Your task to perform on an android device: Open calendar and show me the first week of next month Image 0: 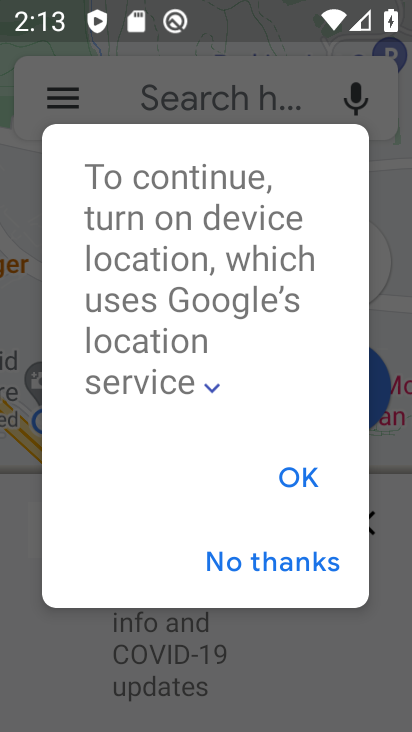
Step 0: press back button
Your task to perform on an android device: Open calendar and show me the first week of next month Image 1: 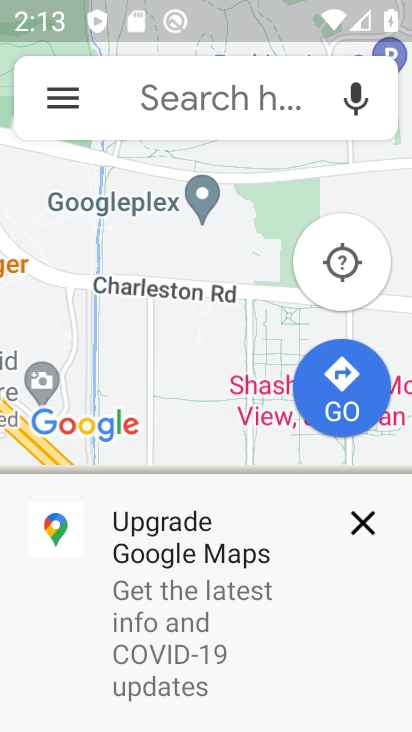
Step 1: press home button
Your task to perform on an android device: Open calendar and show me the first week of next month Image 2: 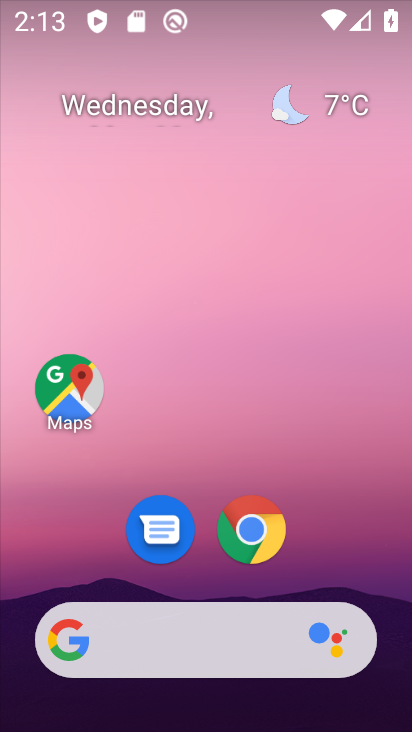
Step 2: drag from (50, 528) to (255, 161)
Your task to perform on an android device: Open calendar and show me the first week of next month Image 3: 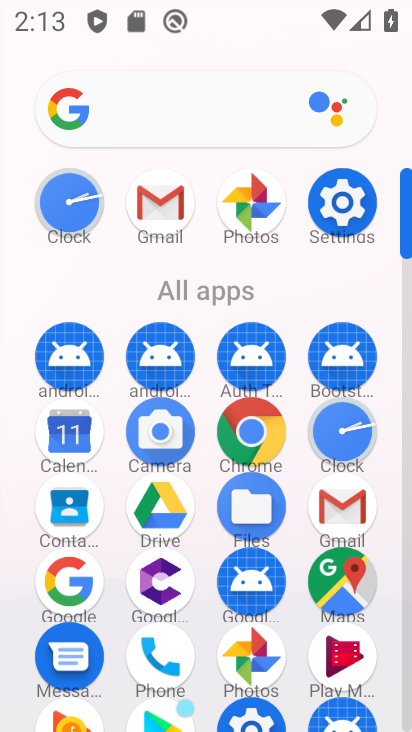
Step 3: click (67, 423)
Your task to perform on an android device: Open calendar and show me the first week of next month Image 4: 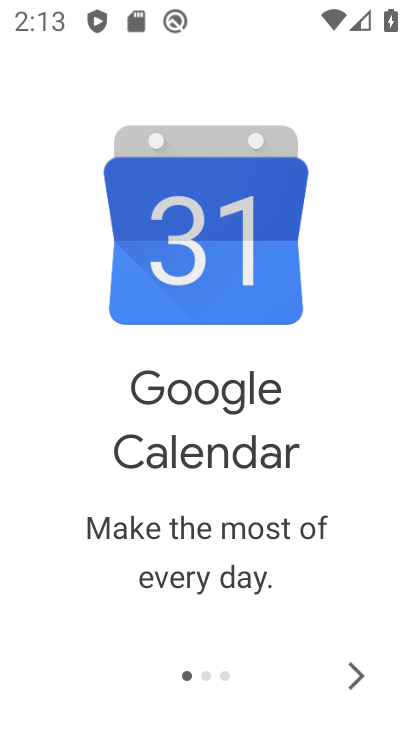
Step 4: click (358, 671)
Your task to perform on an android device: Open calendar and show me the first week of next month Image 5: 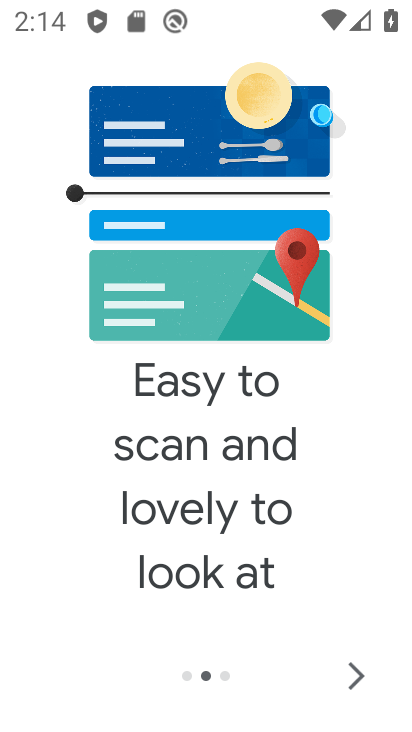
Step 5: click (358, 671)
Your task to perform on an android device: Open calendar and show me the first week of next month Image 6: 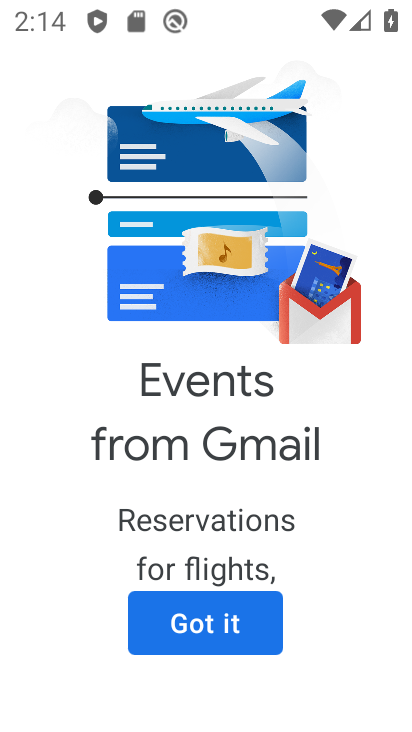
Step 6: click (264, 639)
Your task to perform on an android device: Open calendar and show me the first week of next month Image 7: 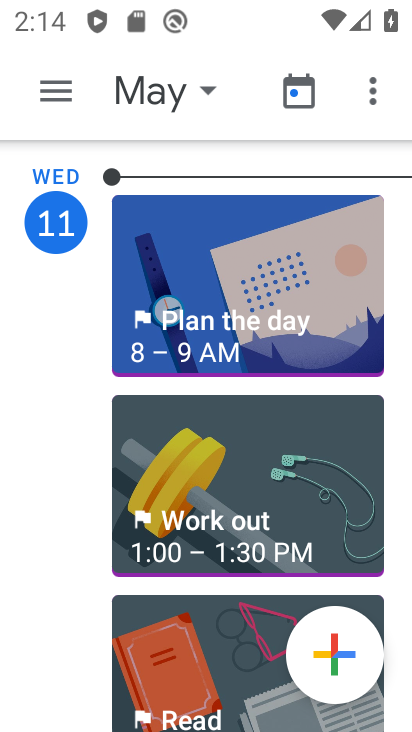
Step 7: click (141, 77)
Your task to perform on an android device: Open calendar and show me the first week of next month Image 8: 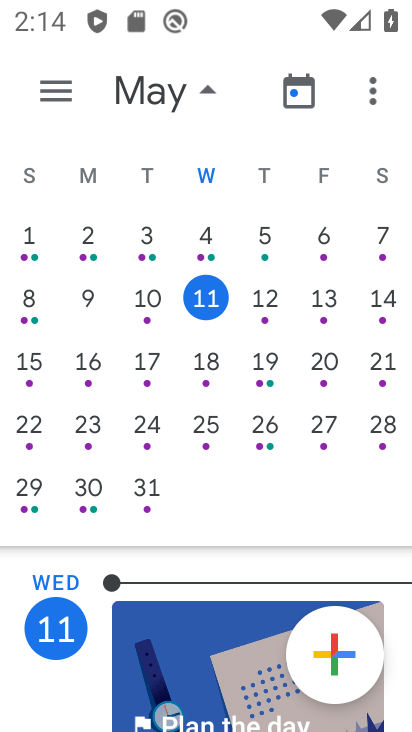
Step 8: drag from (402, 342) to (19, 350)
Your task to perform on an android device: Open calendar and show me the first week of next month Image 9: 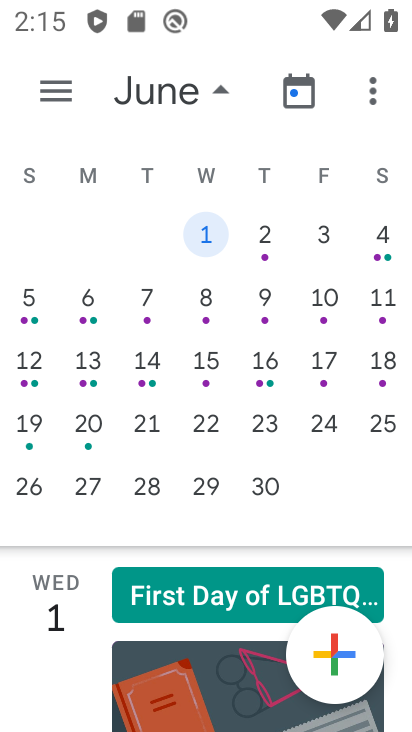
Step 9: click (86, 305)
Your task to perform on an android device: Open calendar and show me the first week of next month Image 10: 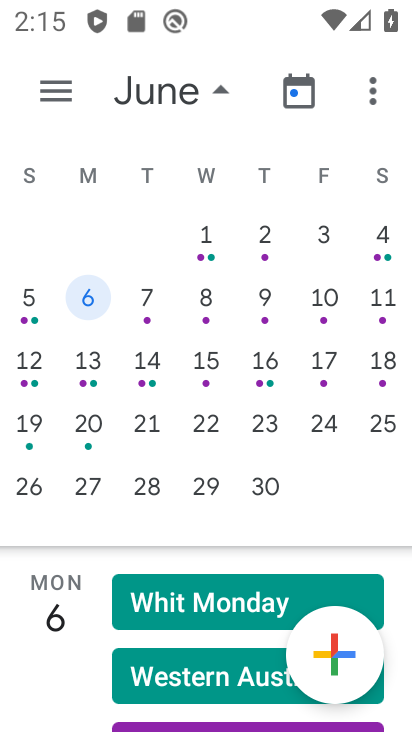
Step 10: click (256, 239)
Your task to perform on an android device: Open calendar and show me the first week of next month Image 11: 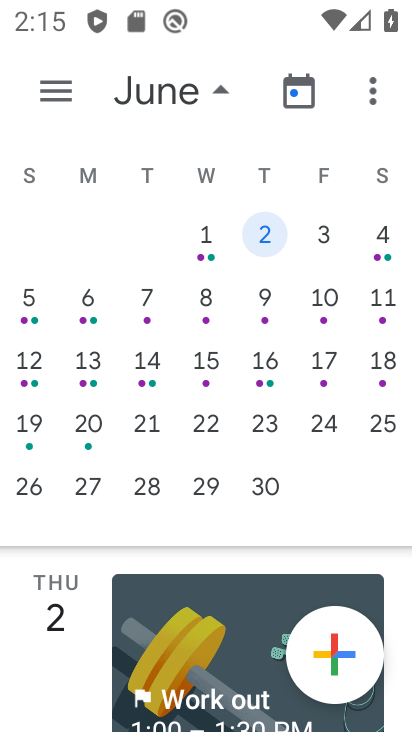
Step 11: click (314, 236)
Your task to perform on an android device: Open calendar and show me the first week of next month Image 12: 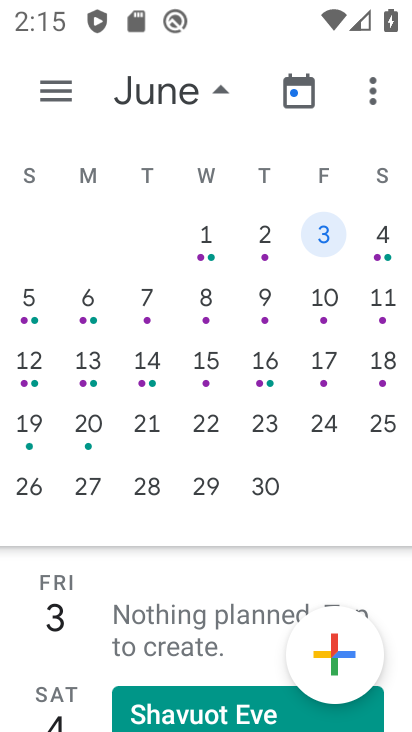
Step 12: task complete